Your task to perform on an android device: read, delete, or share a saved page in the chrome app Image 0: 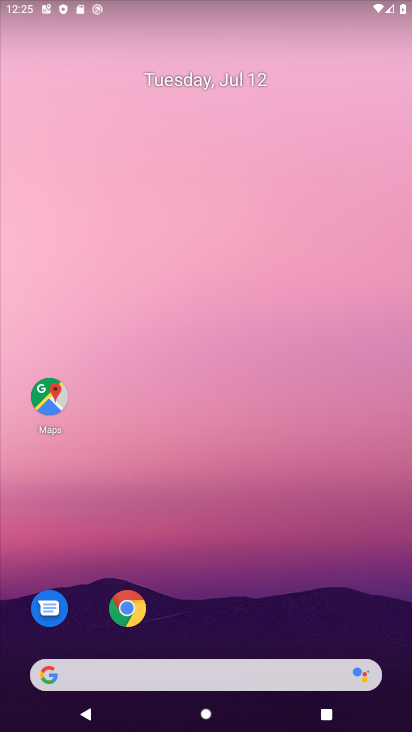
Step 0: click (135, 613)
Your task to perform on an android device: read, delete, or share a saved page in the chrome app Image 1: 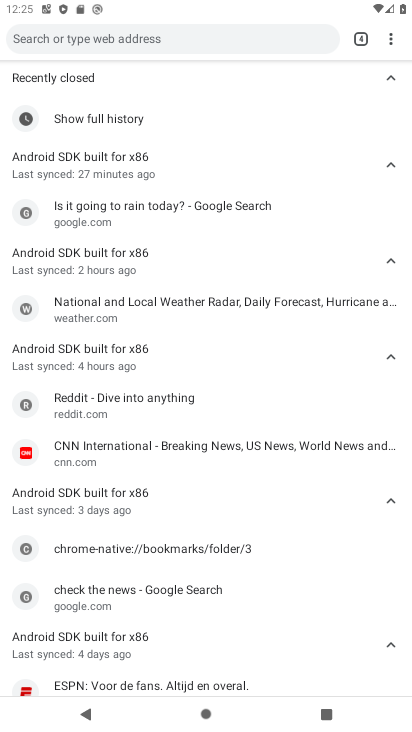
Step 1: click (405, 39)
Your task to perform on an android device: read, delete, or share a saved page in the chrome app Image 2: 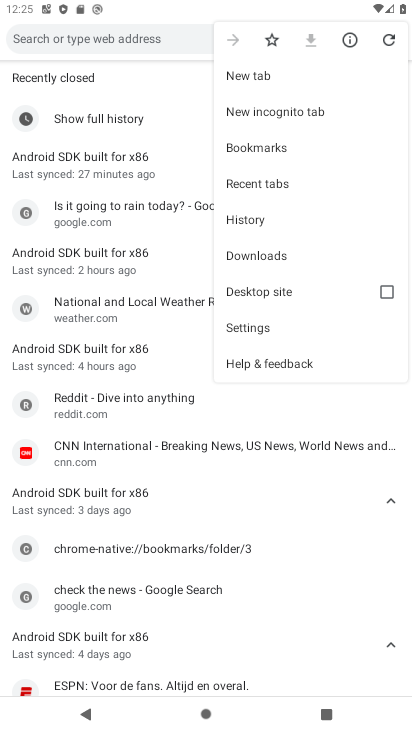
Step 2: click (270, 275)
Your task to perform on an android device: read, delete, or share a saved page in the chrome app Image 3: 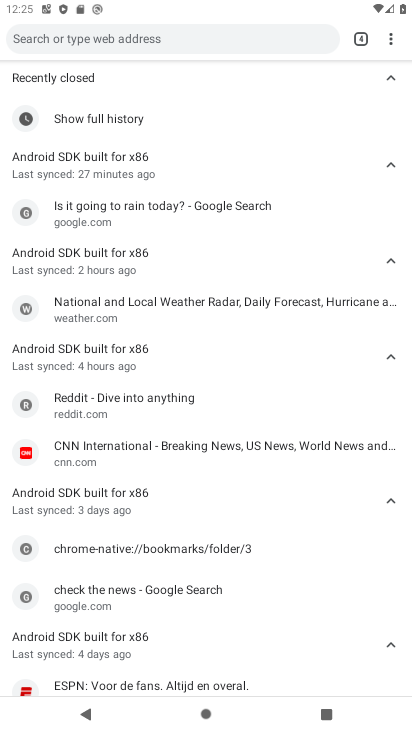
Step 3: click (399, 36)
Your task to perform on an android device: read, delete, or share a saved page in the chrome app Image 4: 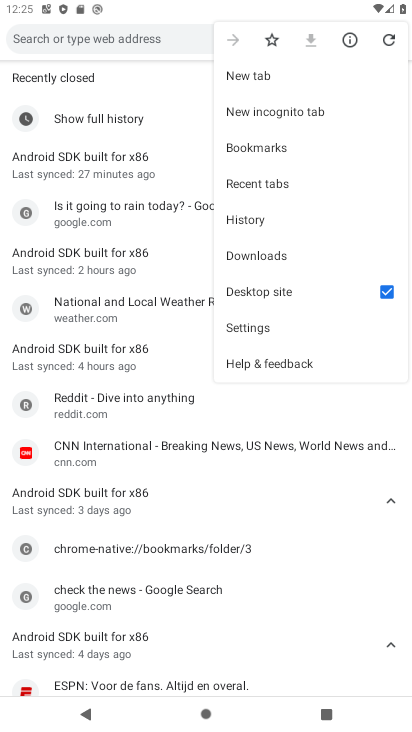
Step 4: click (278, 254)
Your task to perform on an android device: read, delete, or share a saved page in the chrome app Image 5: 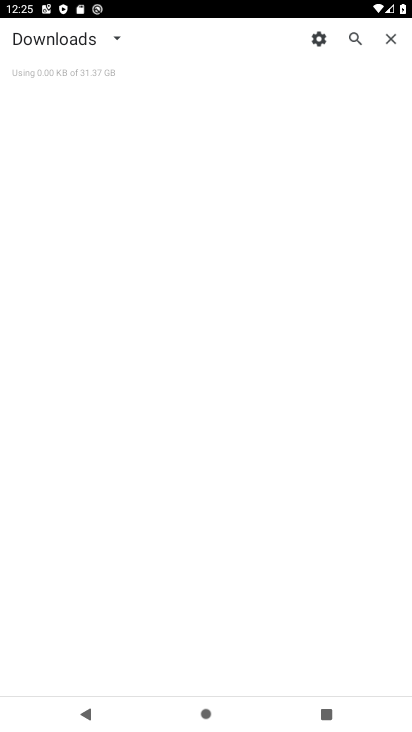
Step 5: task complete